Your task to perform on an android device: Clear the cart on ebay.com. Add "logitech g502" to the cart on ebay.com Image 0: 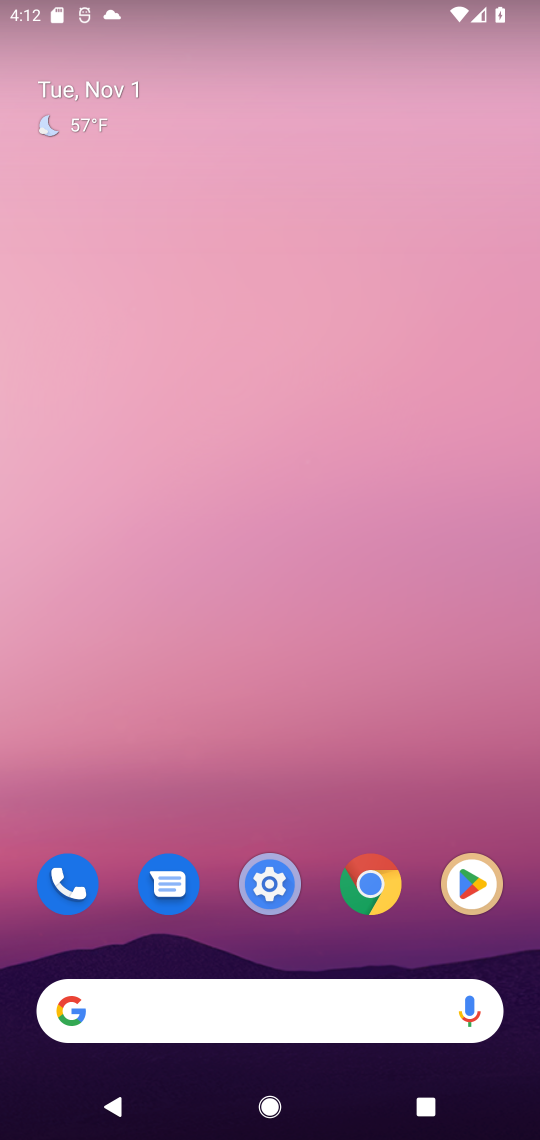
Step 0: press home button
Your task to perform on an android device: Clear the cart on ebay.com. Add "logitech g502" to the cart on ebay.com Image 1: 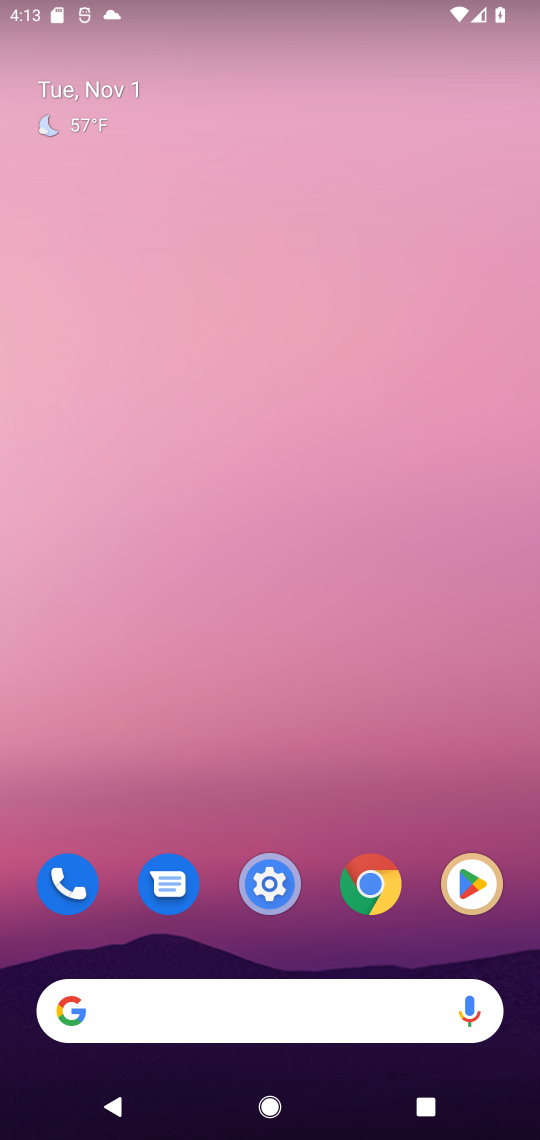
Step 1: click (99, 1015)
Your task to perform on an android device: Clear the cart on ebay.com. Add "logitech g502" to the cart on ebay.com Image 2: 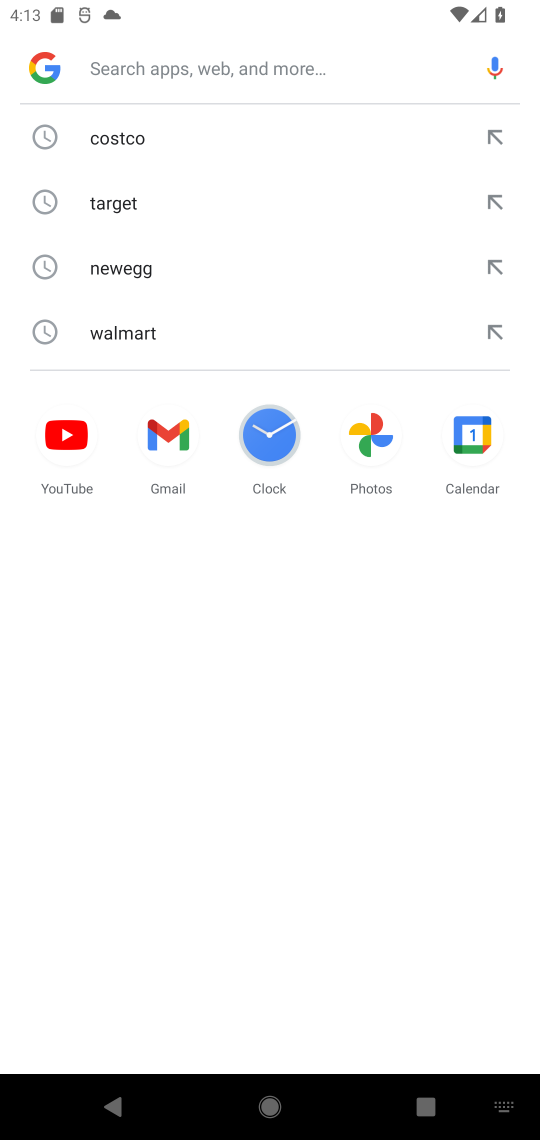
Step 2: type " ebay.com"
Your task to perform on an android device: Clear the cart on ebay.com. Add "logitech g502" to the cart on ebay.com Image 3: 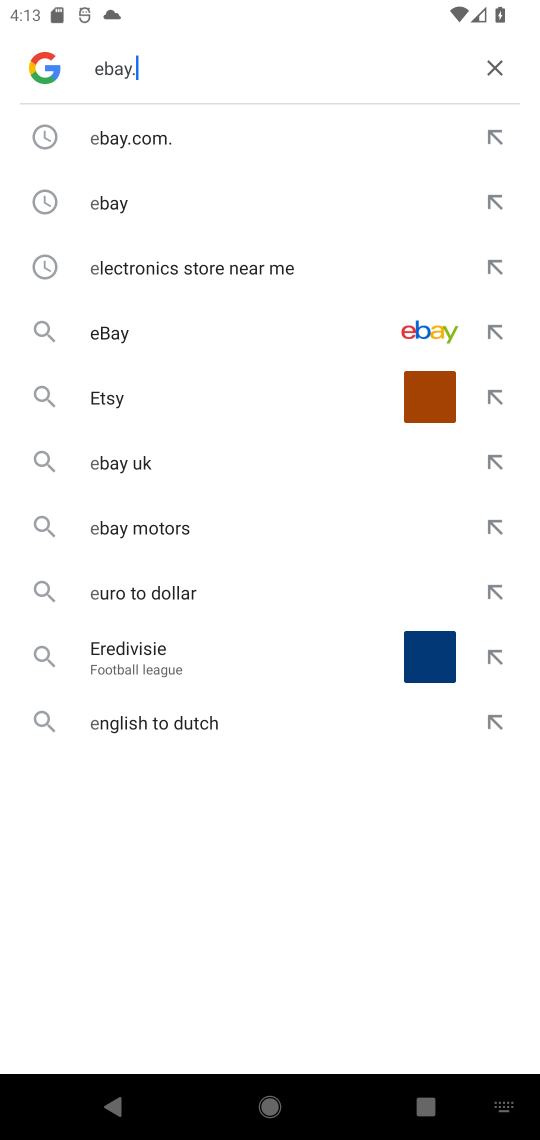
Step 3: press enter
Your task to perform on an android device: Clear the cart on ebay.com. Add "logitech g502" to the cart on ebay.com Image 4: 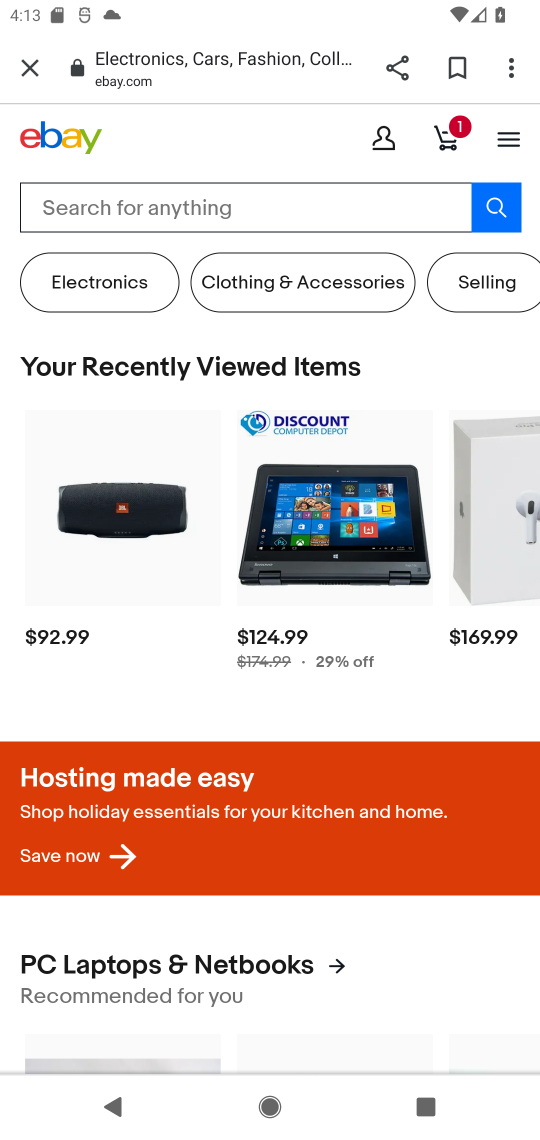
Step 4: click (465, 128)
Your task to perform on an android device: Clear the cart on ebay.com. Add "logitech g502" to the cart on ebay.com Image 5: 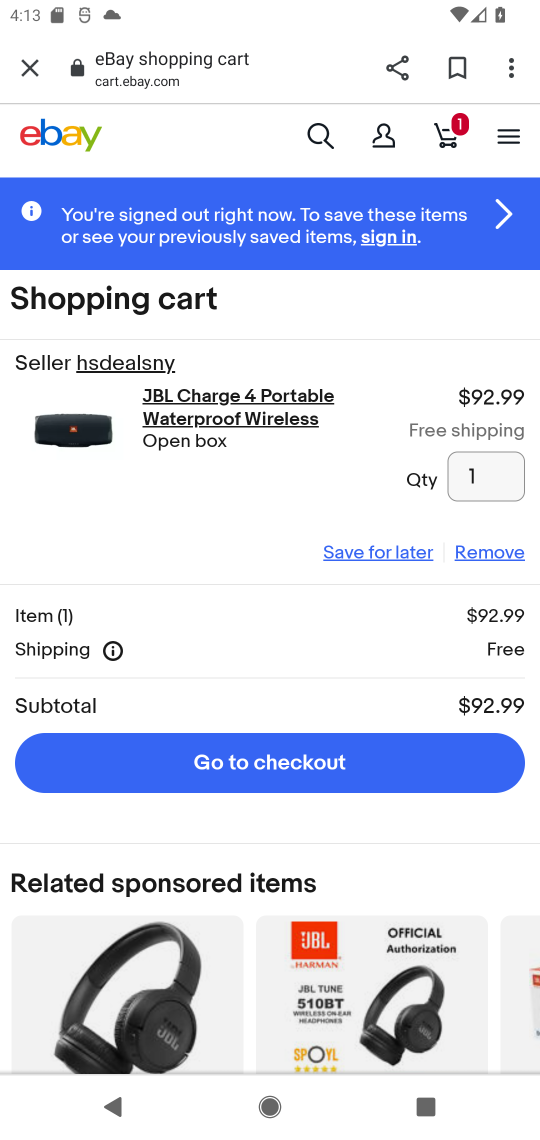
Step 5: click (503, 552)
Your task to perform on an android device: Clear the cart on ebay.com. Add "logitech g502" to the cart on ebay.com Image 6: 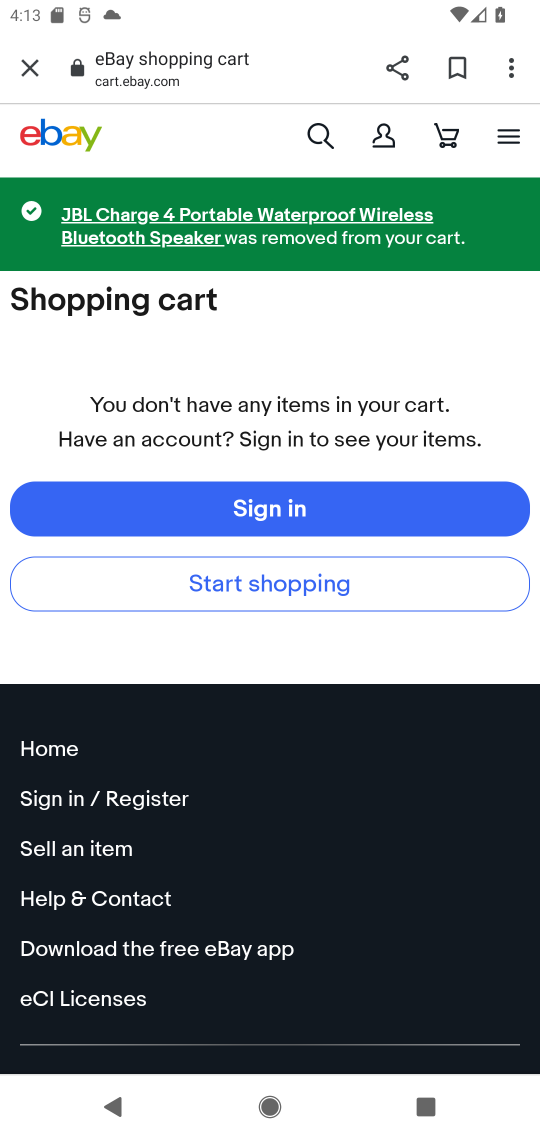
Step 6: click (317, 137)
Your task to perform on an android device: Clear the cart on ebay.com. Add "logitech g502" to the cart on ebay.com Image 7: 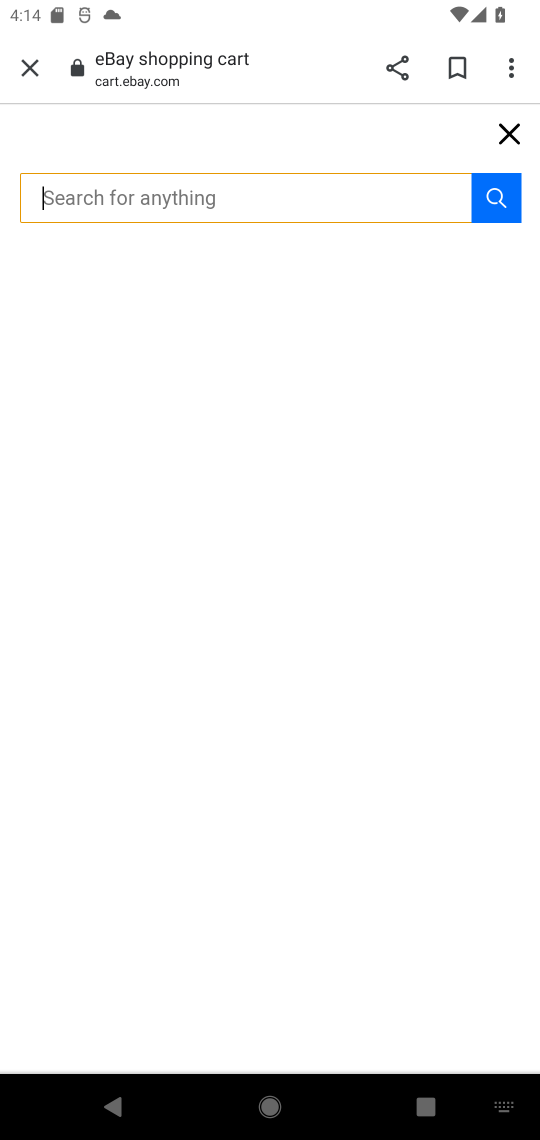
Step 7: press enter
Your task to perform on an android device: Clear the cart on ebay.com. Add "logitech g502" to the cart on ebay.com Image 8: 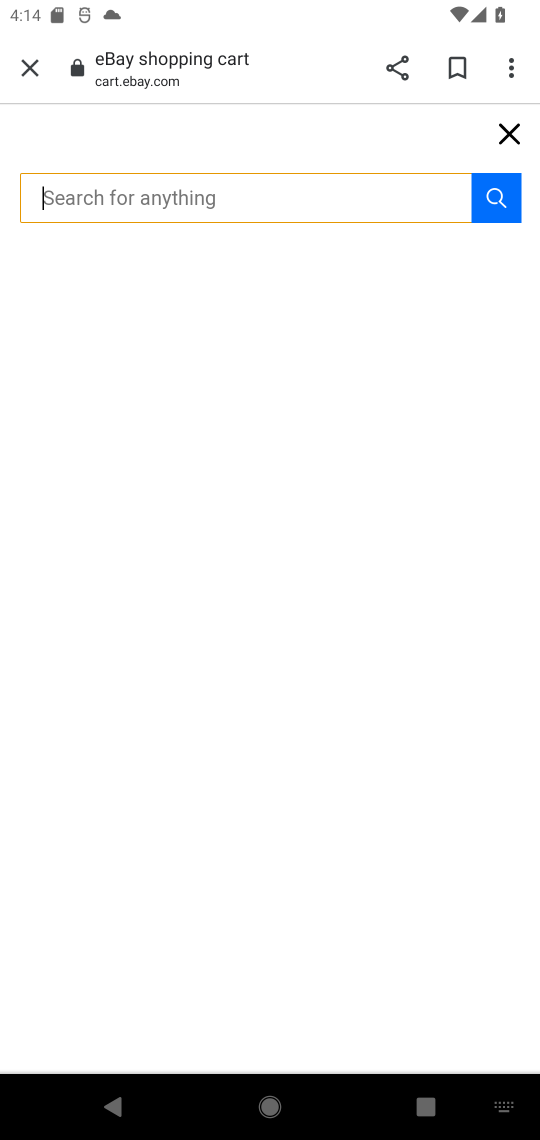
Step 8: type "logitech g502"
Your task to perform on an android device: Clear the cart on ebay.com. Add "logitech g502" to the cart on ebay.com Image 9: 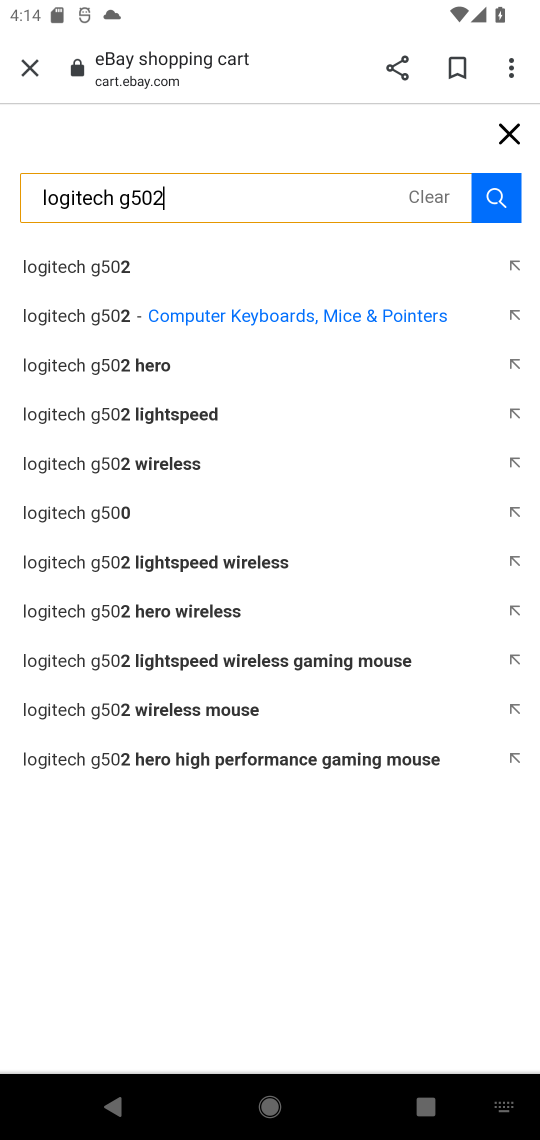
Step 9: click (495, 194)
Your task to perform on an android device: Clear the cart on ebay.com. Add "logitech g502" to the cart on ebay.com Image 10: 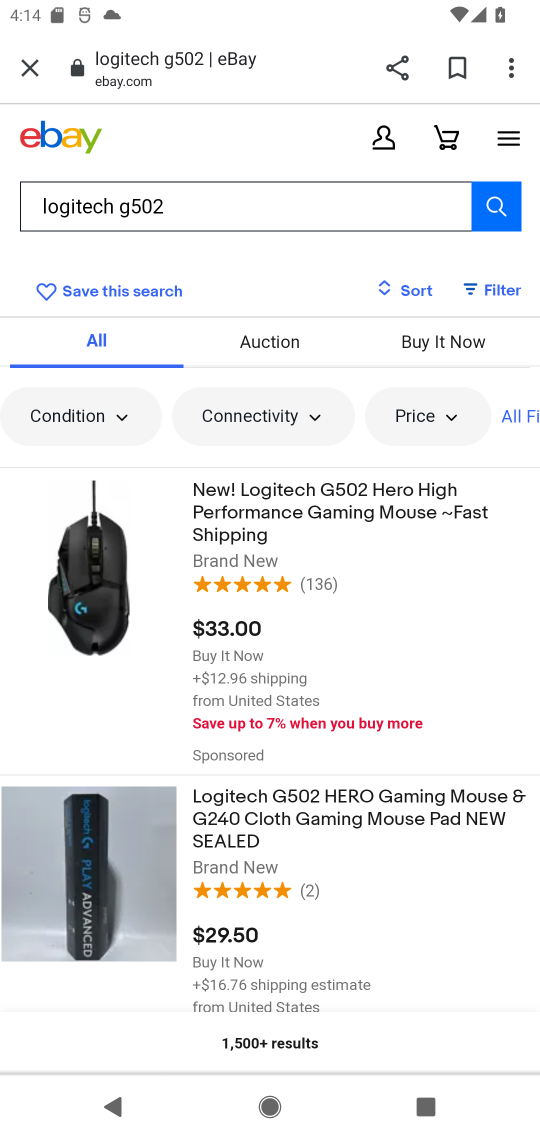
Step 10: click (347, 495)
Your task to perform on an android device: Clear the cart on ebay.com. Add "logitech g502" to the cart on ebay.com Image 11: 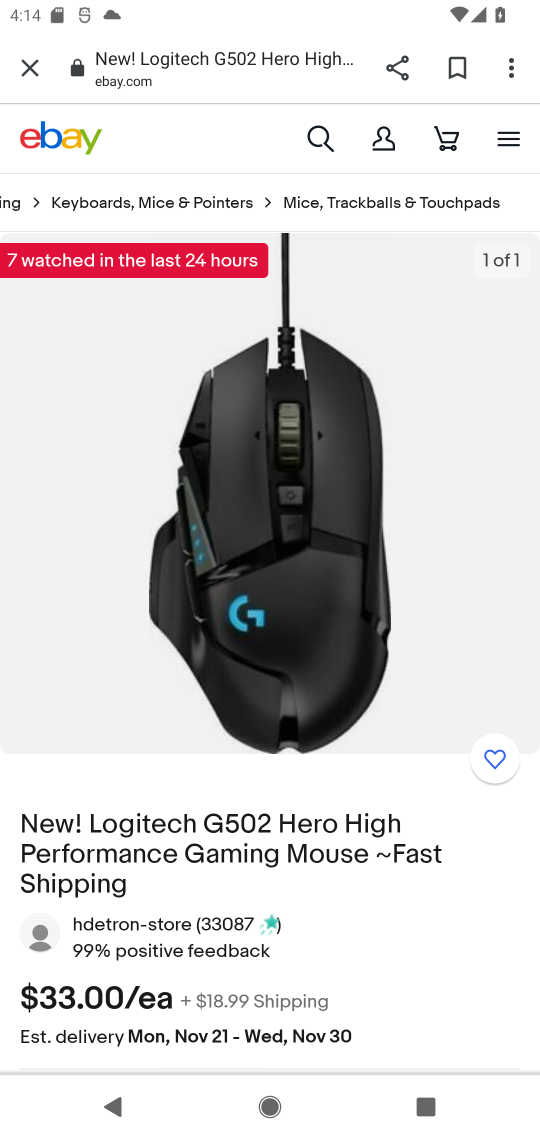
Step 11: drag from (341, 818) to (350, 317)
Your task to perform on an android device: Clear the cart on ebay.com. Add "logitech g502" to the cart on ebay.com Image 12: 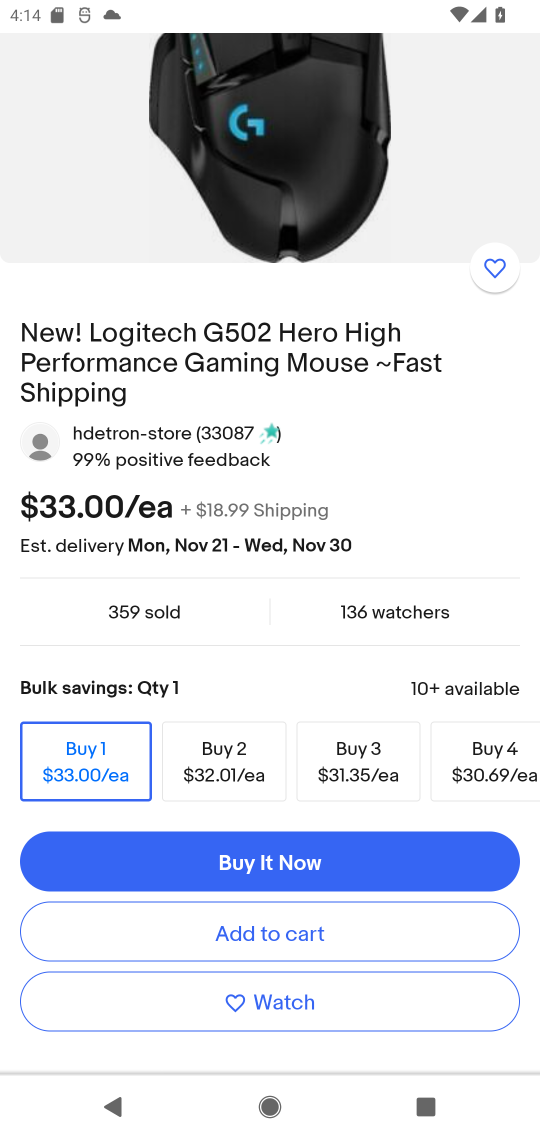
Step 12: click (272, 932)
Your task to perform on an android device: Clear the cart on ebay.com. Add "logitech g502" to the cart on ebay.com Image 13: 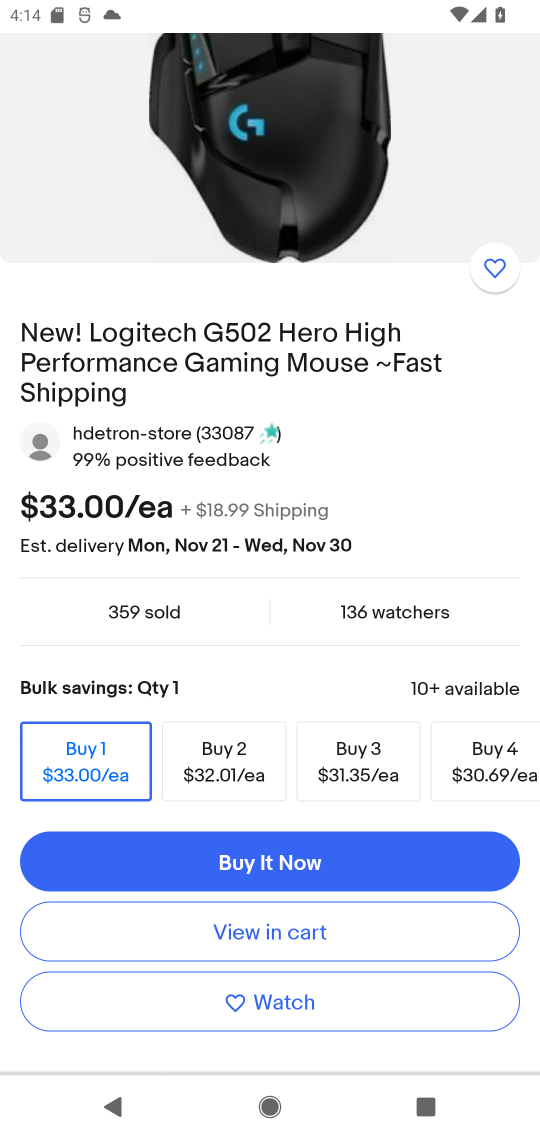
Step 13: task complete